Your task to perform on an android device: Open Google Maps and go to "Timeline" Image 0: 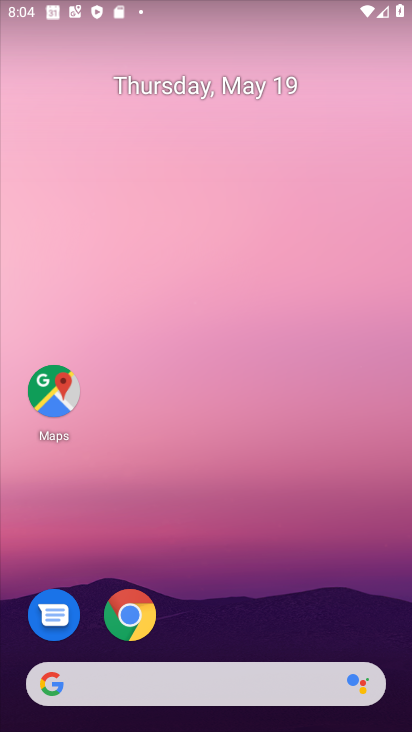
Step 0: drag from (185, 662) to (203, 100)
Your task to perform on an android device: Open Google Maps and go to "Timeline" Image 1: 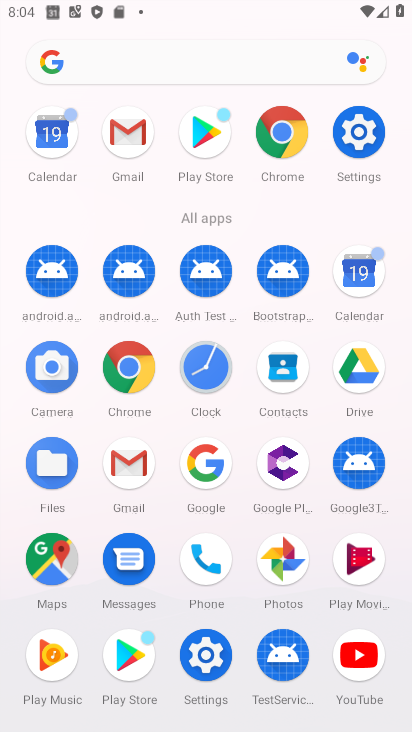
Step 1: click (61, 569)
Your task to perform on an android device: Open Google Maps and go to "Timeline" Image 2: 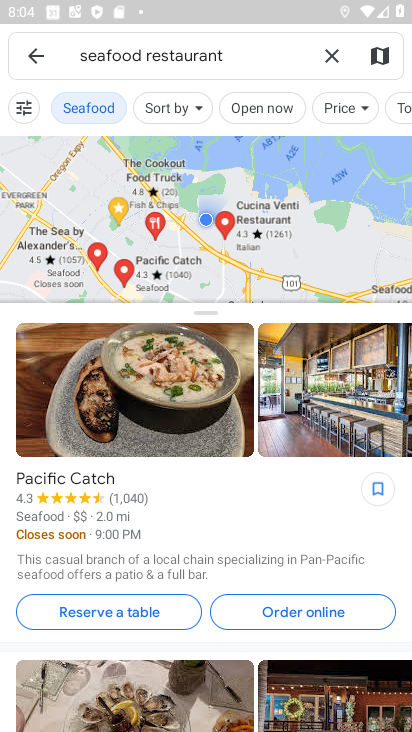
Step 2: click (40, 61)
Your task to perform on an android device: Open Google Maps and go to "Timeline" Image 3: 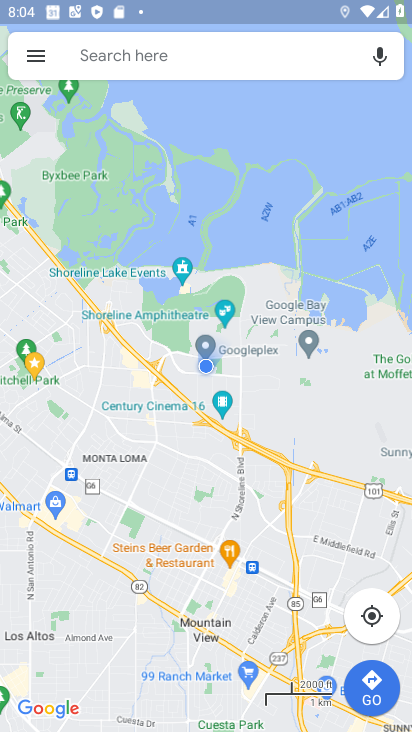
Step 3: click (33, 55)
Your task to perform on an android device: Open Google Maps and go to "Timeline" Image 4: 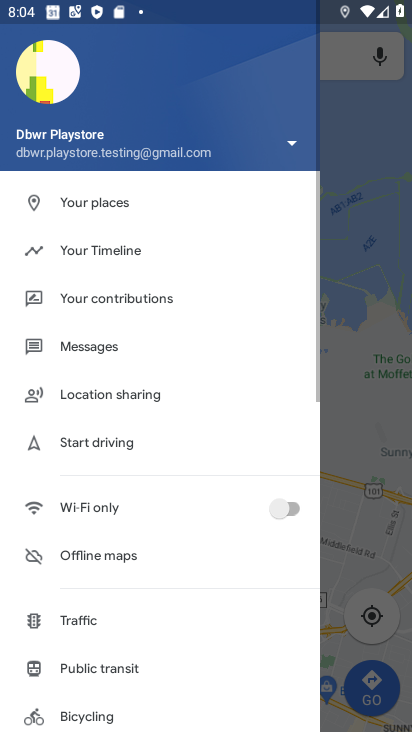
Step 4: click (146, 244)
Your task to perform on an android device: Open Google Maps and go to "Timeline" Image 5: 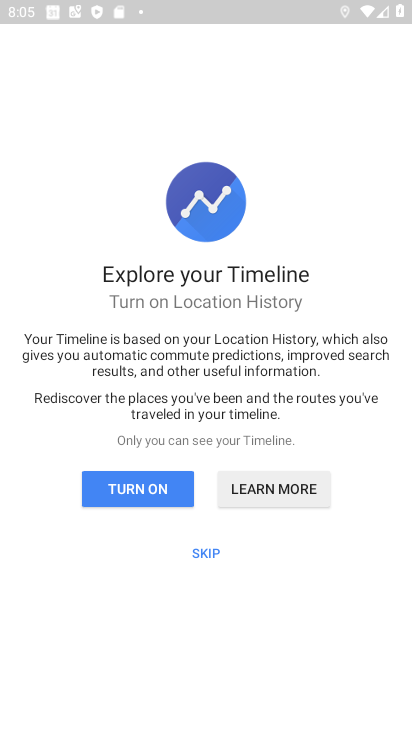
Step 5: click (219, 550)
Your task to perform on an android device: Open Google Maps and go to "Timeline" Image 6: 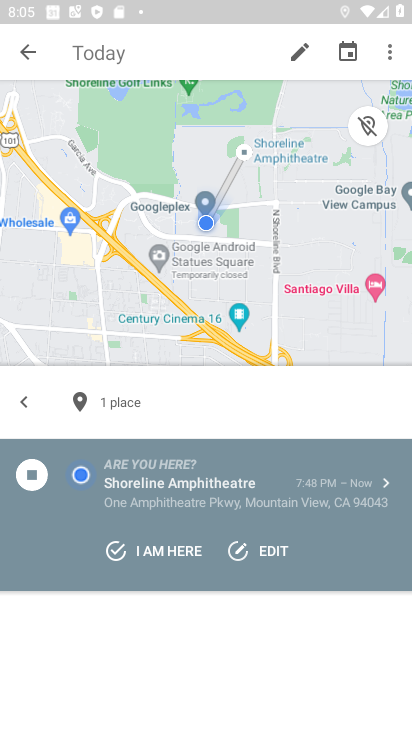
Step 6: task complete